Your task to perform on an android device: Go to sound settings Image 0: 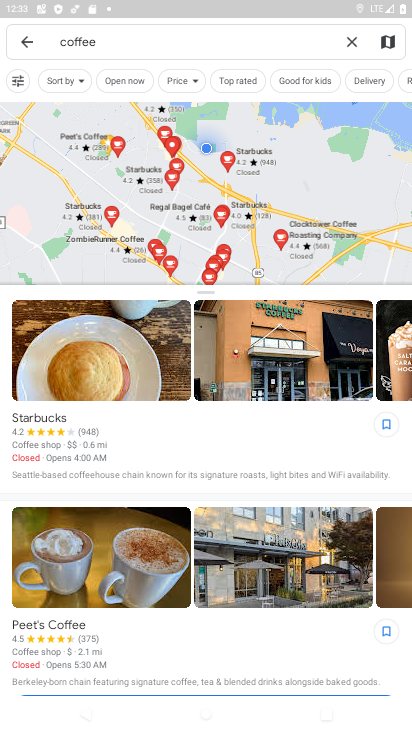
Step 0: press home button
Your task to perform on an android device: Go to sound settings Image 1: 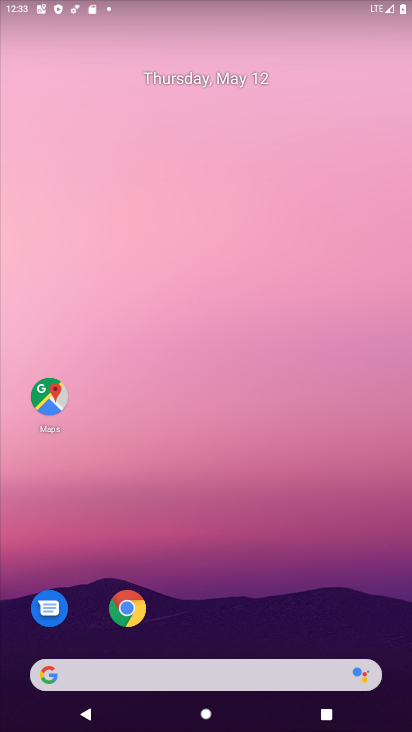
Step 1: drag from (297, 610) to (253, 10)
Your task to perform on an android device: Go to sound settings Image 2: 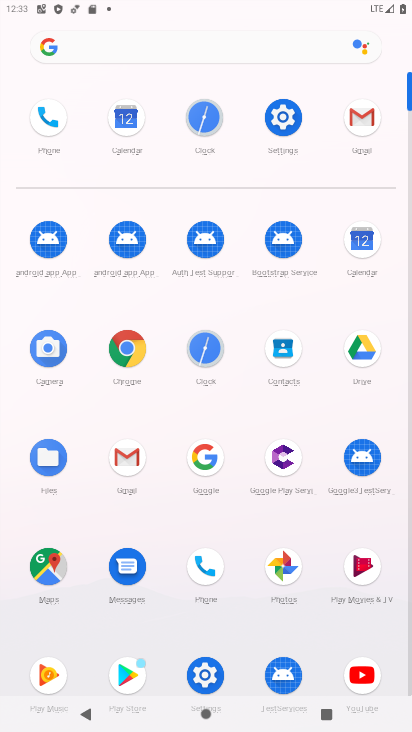
Step 2: click (287, 129)
Your task to perform on an android device: Go to sound settings Image 3: 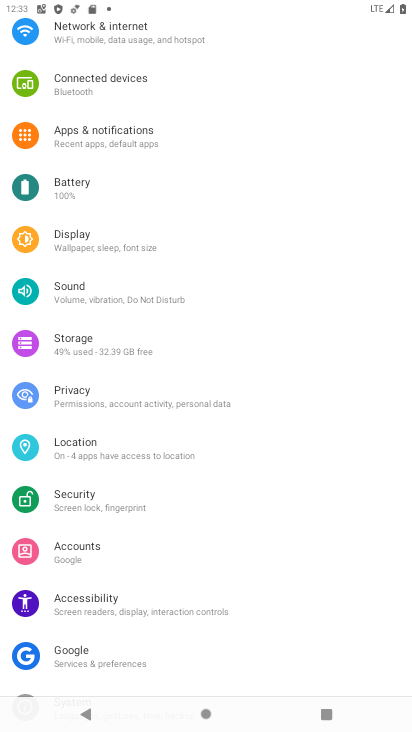
Step 3: click (68, 296)
Your task to perform on an android device: Go to sound settings Image 4: 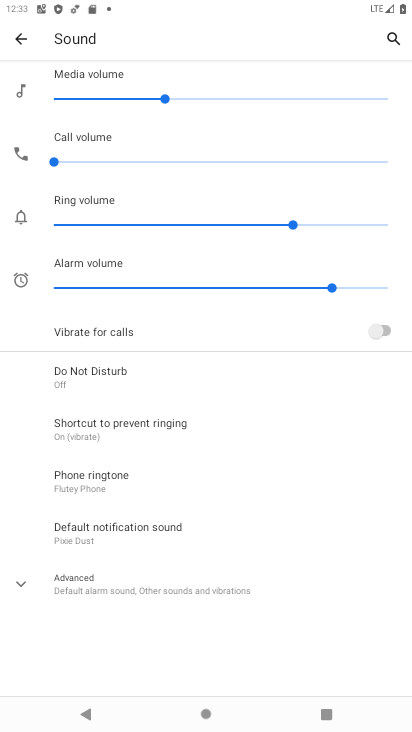
Step 4: task complete